Your task to perform on an android device: Set the phone to "Do not disturb". Image 0: 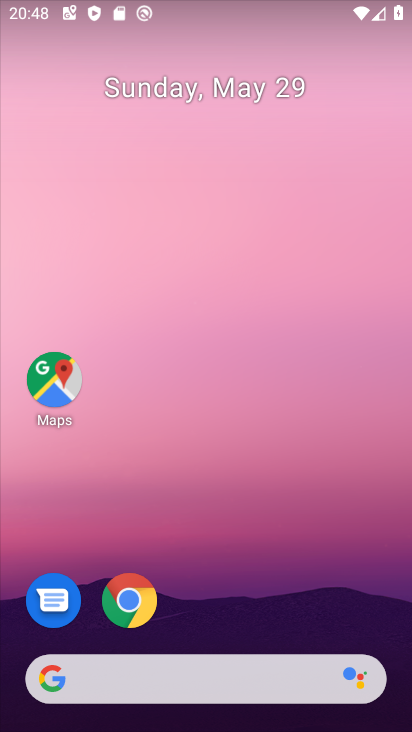
Step 0: drag from (293, 491) to (287, 178)
Your task to perform on an android device: Set the phone to "Do not disturb". Image 1: 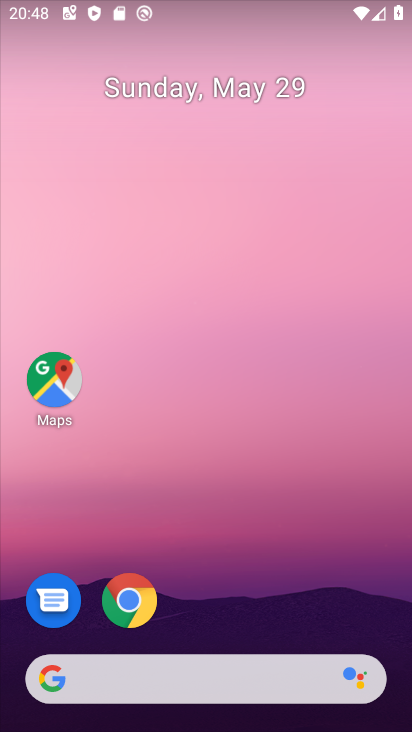
Step 1: drag from (272, 558) to (266, 189)
Your task to perform on an android device: Set the phone to "Do not disturb". Image 2: 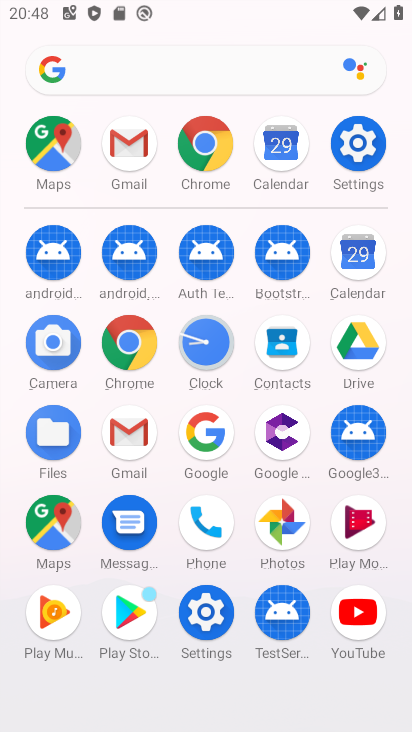
Step 2: click (360, 161)
Your task to perform on an android device: Set the phone to "Do not disturb". Image 3: 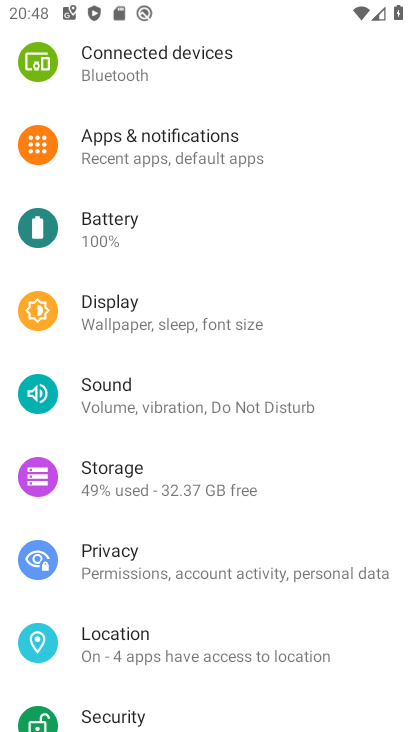
Step 3: click (187, 398)
Your task to perform on an android device: Set the phone to "Do not disturb". Image 4: 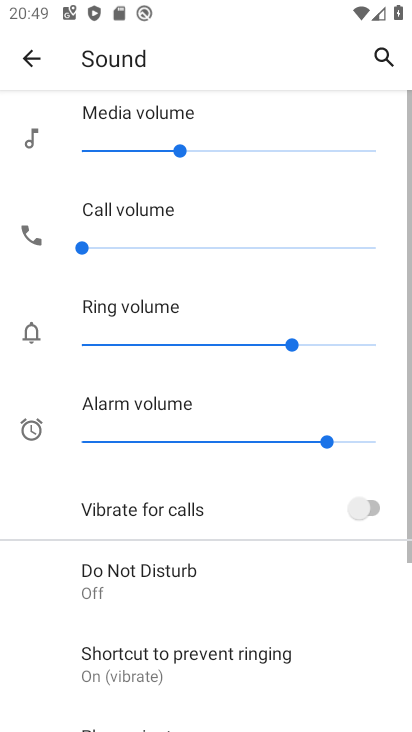
Step 4: click (160, 582)
Your task to perform on an android device: Set the phone to "Do not disturb". Image 5: 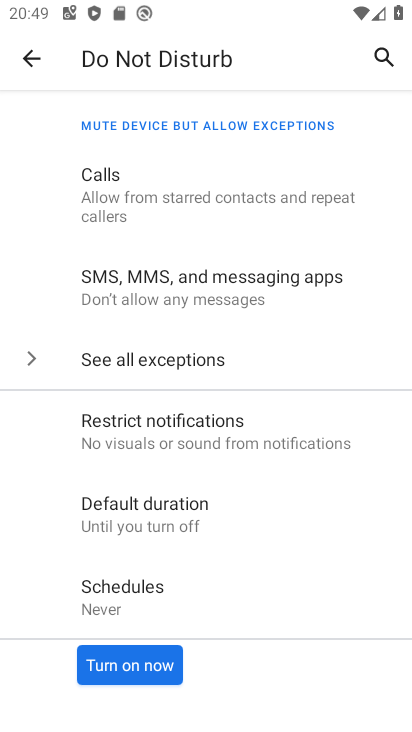
Step 5: click (109, 667)
Your task to perform on an android device: Set the phone to "Do not disturb". Image 6: 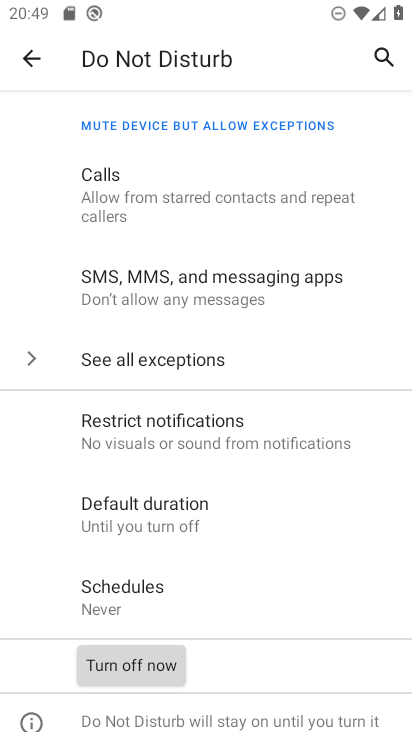
Step 6: task complete